Your task to perform on an android device: open wifi settings Image 0: 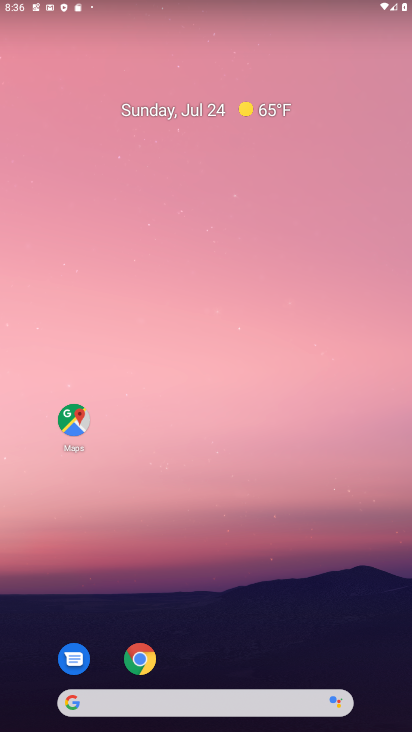
Step 0: drag from (289, 588) to (306, 15)
Your task to perform on an android device: open wifi settings Image 1: 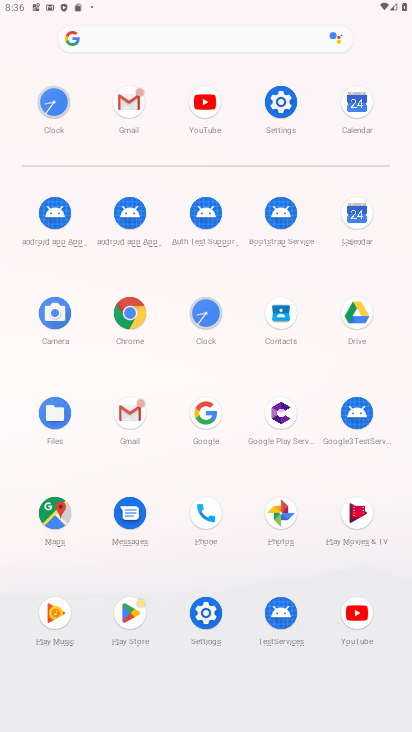
Step 1: click (277, 97)
Your task to perform on an android device: open wifi settings Image 2: 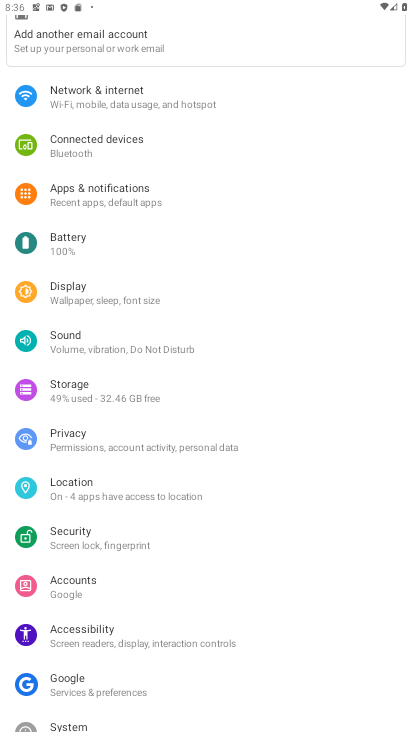
Step 2: click (93, 98)
Your task to perform on an android device: open wifi settings Image 3: 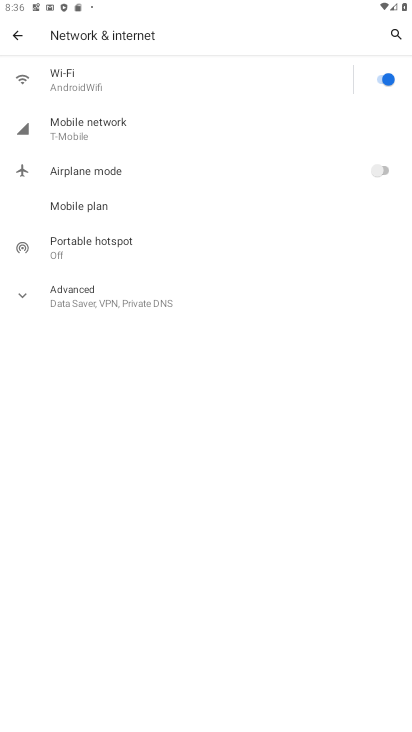
Step 3: click (24, 83)
Your task to perform on an android device: open wifi settings Image 4: 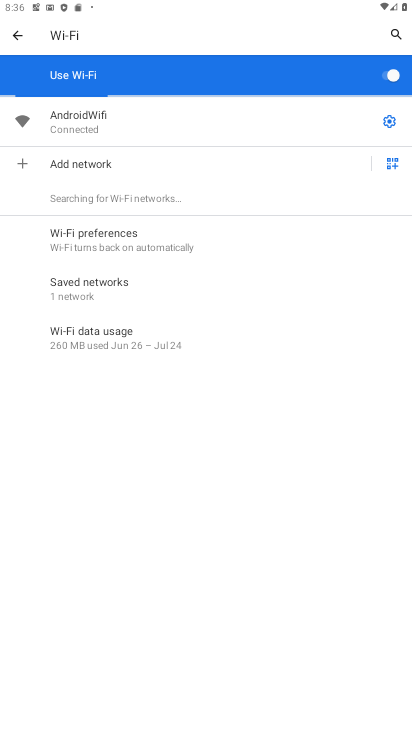
Step 4: click (387, 122)
Your task to perform on an android device: open wifi settings Image 5: 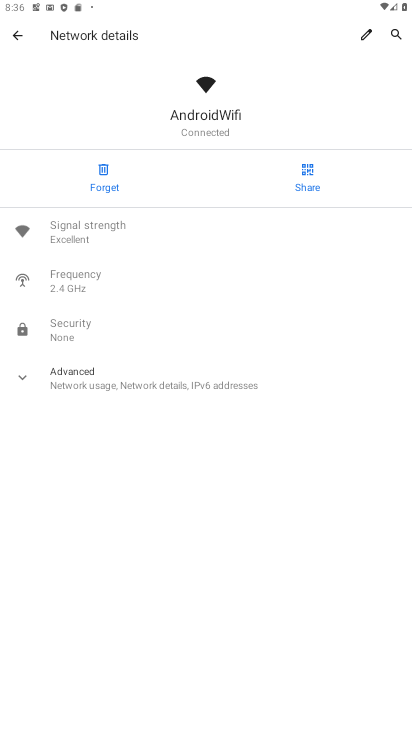
Step 5: task complete